Your task to perform on an android device: turn off smart reply in the gmail app Image 0: 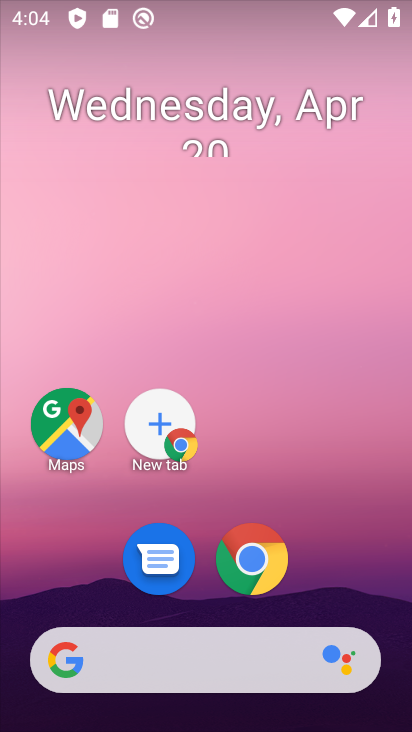
Step 0: click (285, 219)
Your task to perform on an android device: turn off smart reply in the gmail app Image 1: 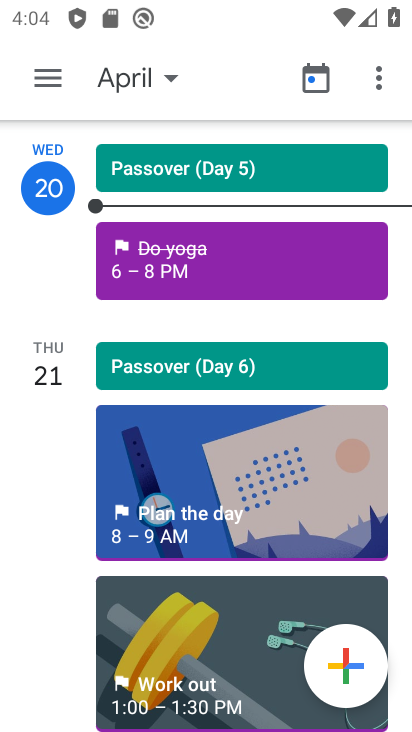
Step 1: click (60, 90)
Your task to perform on an android device: turn off smart reply in the gmail app Image 2: 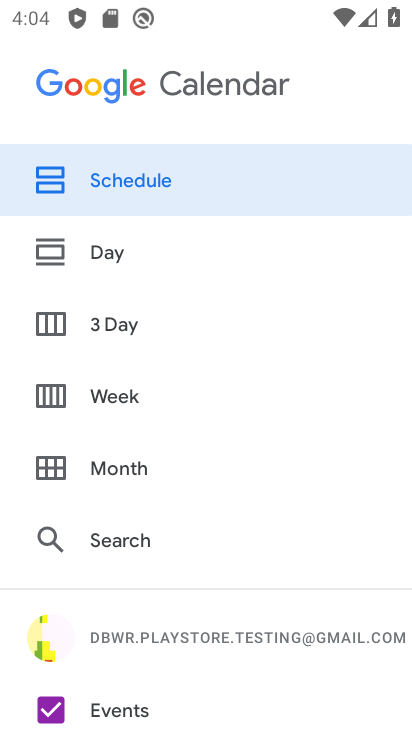
Step 2: press back button
Your task to perform on an android device: turn off smart reply in the gmail app Image 3: 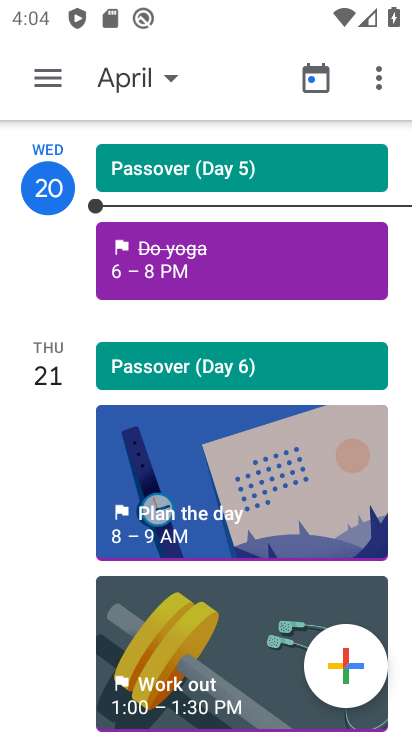
Step 3: press back button
Your task to perform on an android device: turn off smart reply in the gmail app Image 4: 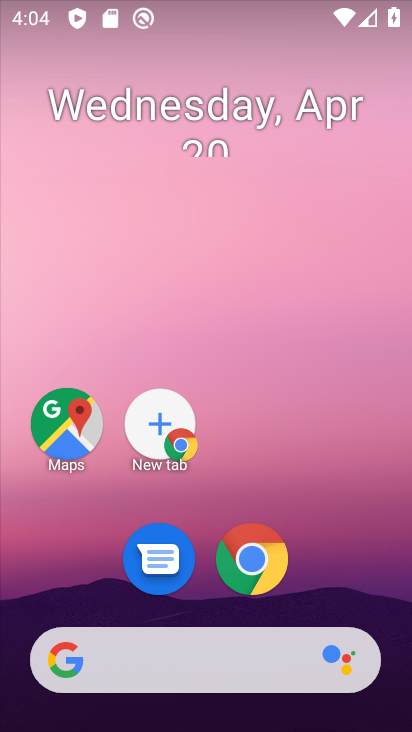
Step 4: drag from (333, 549) to (330, 285)
Your task to perform on an android device: turn off smart reply in the gmail app Image 5: 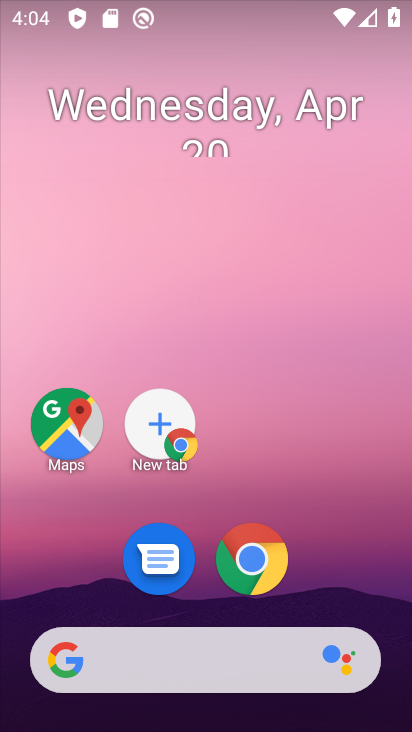
Step 5: drag from (348, 525) to (332, 208)
Your task to perform on an android device: turn off smart reply in the gmail app Image 6: 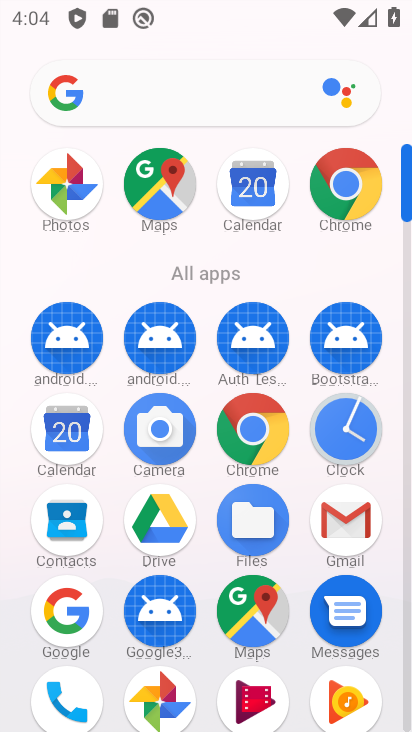
Step 6: click (360, 547)
Your task to perform on an android device: turn off smart reply in the gmail app Image 7: 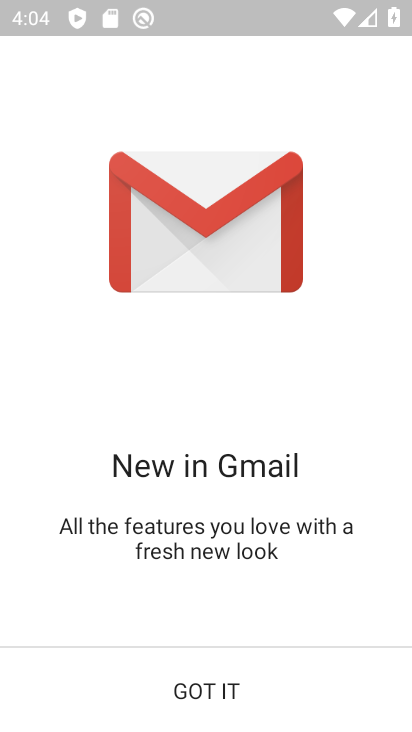
Step 7: click (200, 706)
Your task to perform on an android device: turn off smart reply in the gmail app Image 8: 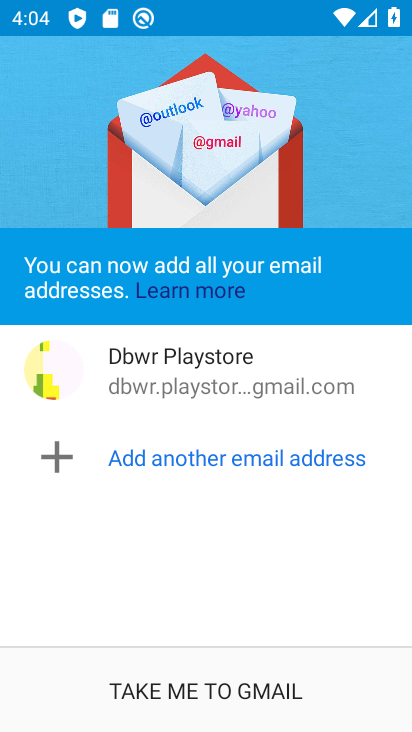
Step 8: click (200, 706)
Your task to perform on an android device: turn off smart reply in the gmail app Image 9: 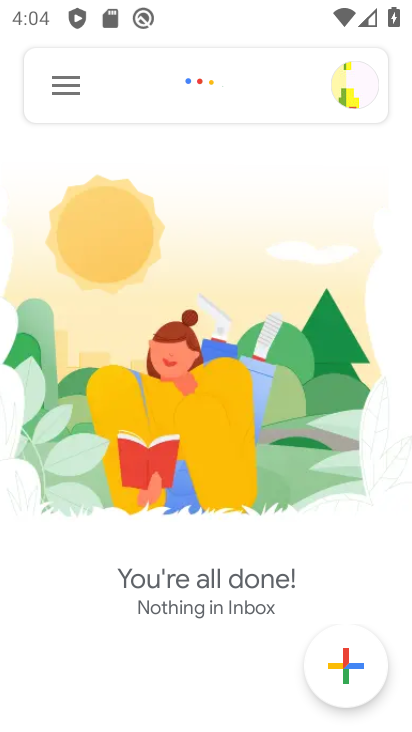
Step 9: click (73, 100)
Your task to perform on an android device: turn off smart reply in the gmail app Image 10: 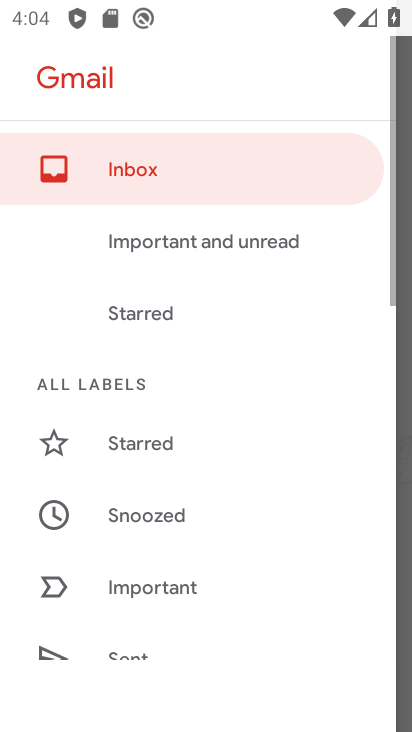
Step 10: drag from (146, 555) to (168, 265)
Your task to perform on an android device: turn off smart reply in the gmail app Image 11: 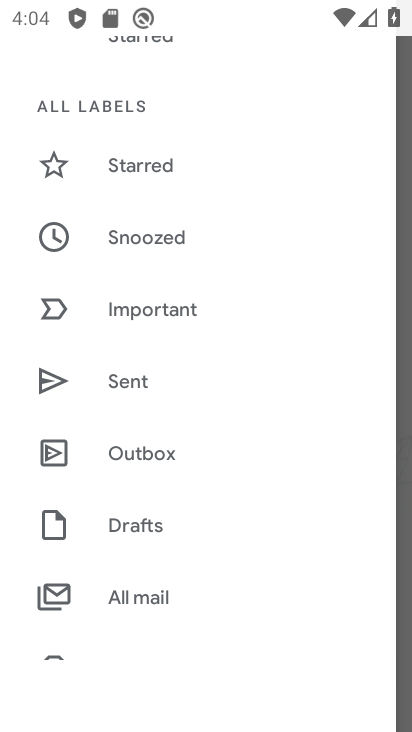
Step 11: drag from (219, 603) to (228, 327)
Your task to perform on an android device: turn off smart reply in the gmail app Image 12: 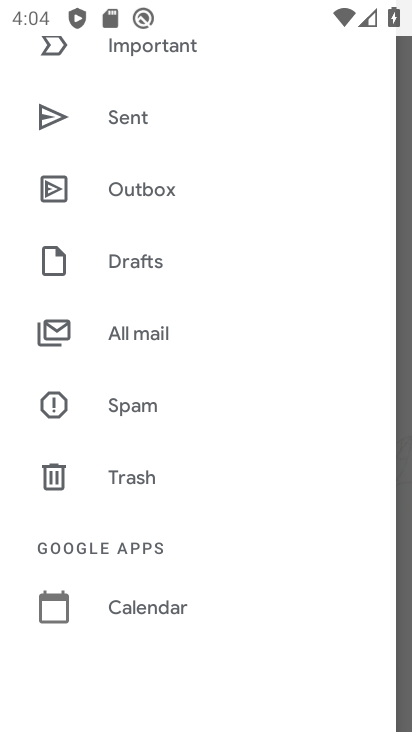
Step 12: drag from (208, 634) to (232, 292)
Your task to perform on an android device: turn off smart reply in the gmail app Image 13: 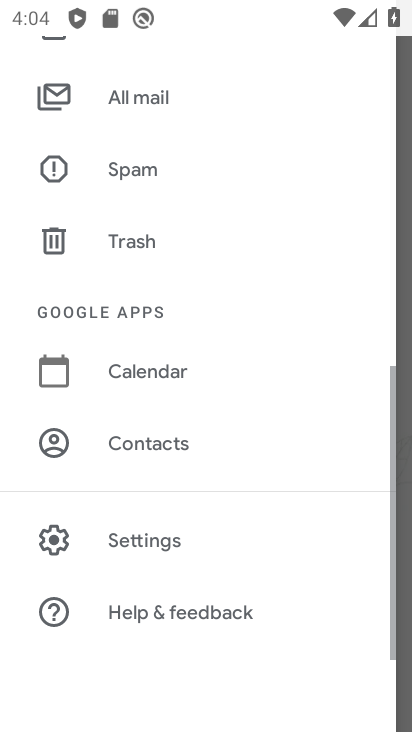
Step 13: click (197, 535)
Your task to perform on an android device: turn off smart reply in the gmail app Image 14: 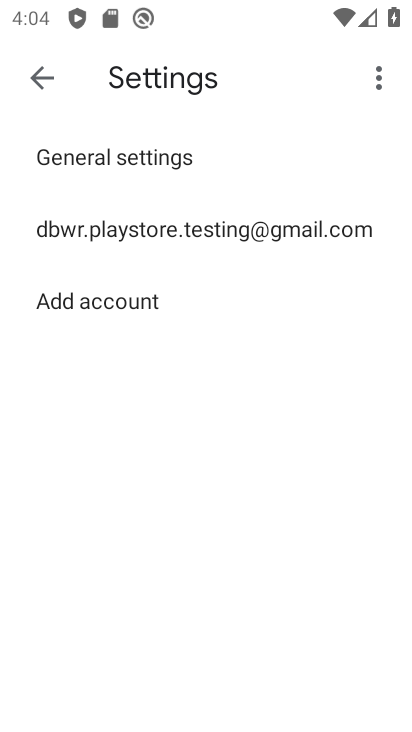
Step 14: click (160, 222)
Your task to perform on an android device: turn off smart reply in the gmail app Image 15: 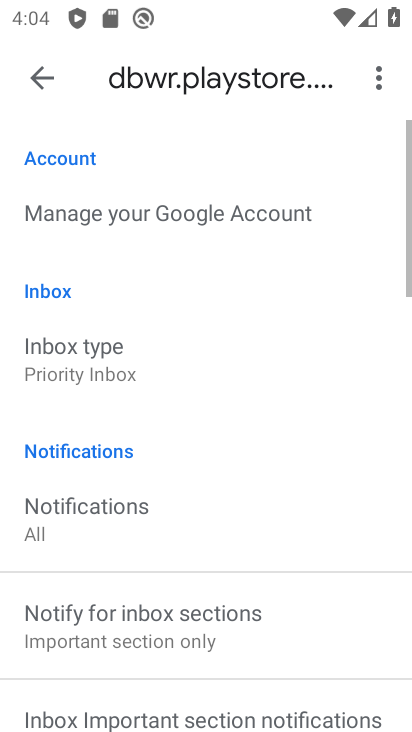
Step 15: drag from (171, 545) to (211, 163)
Your task to perform on an android device: turn off smart reply in the gmail app Image 16: 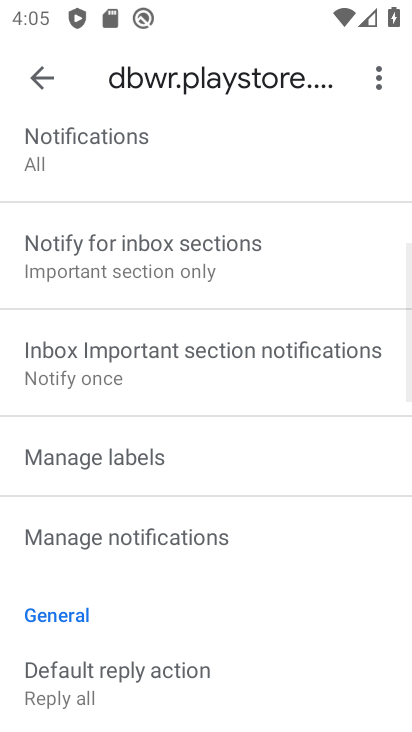
Step 16: drag from (207, 607) to (216, 318)
Your task to perform on an android device: turn off smart reply in the gmail app Image 17: 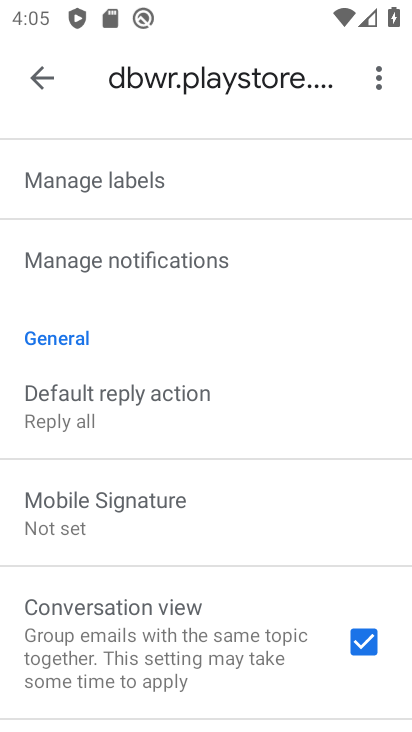
Step 17: drag from (237, 665) to (244, 298)
Your task to perform on an android device: turn off smart reply in the gmail app Image 18: 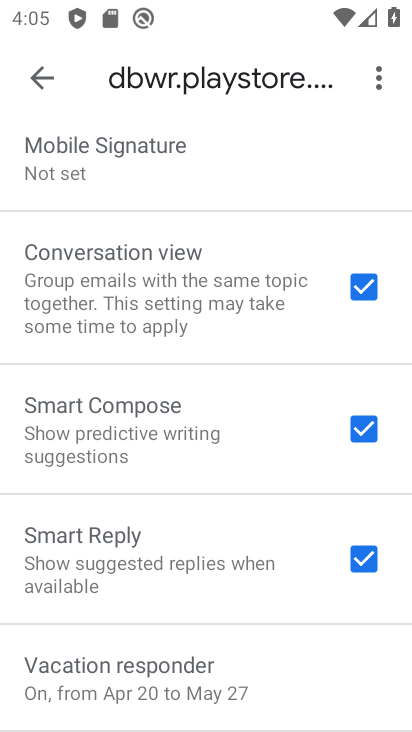
Step 18: click (380, 574)
Your task to perform on an android device: turn off smart reply in the gmail app Image 19: 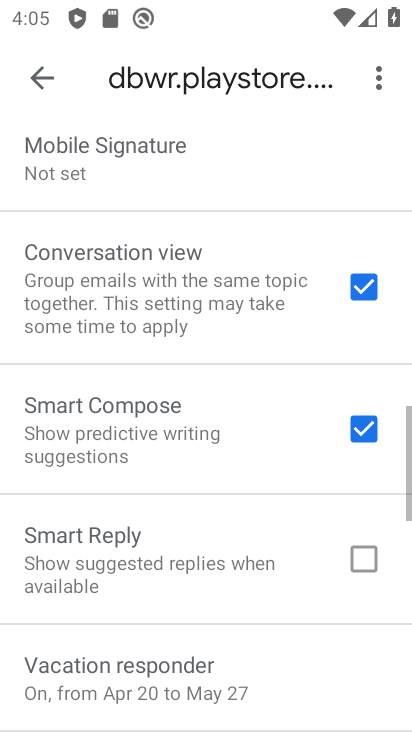
Step 19: task complete